Your task to perform on an android device: visit the assistant section in the google photos Image 0: 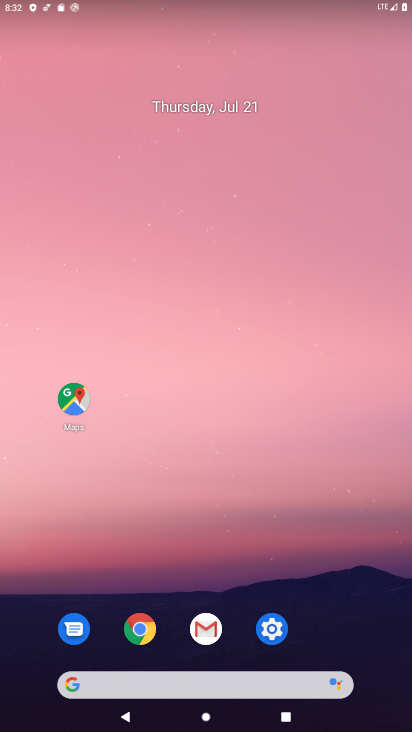
Step 0: drag from (284, 515) to (268, 148)
Your task to perform on an android device: visit the assistant section in the google photos Image 1: 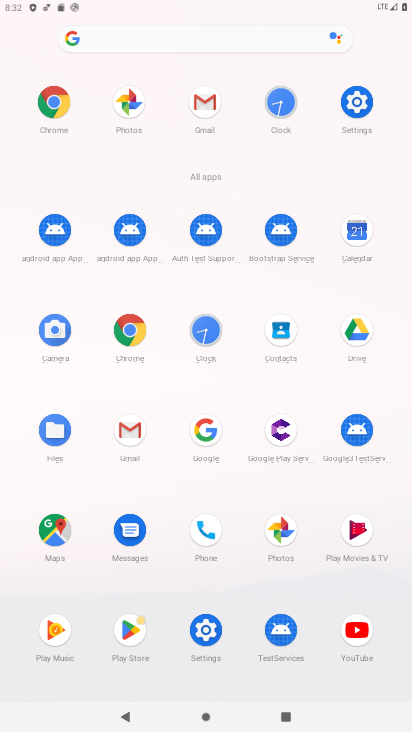
Step 1: click (273, 539)
Your task to perform on an android device: visit the assistant section in the google photos Image 2: 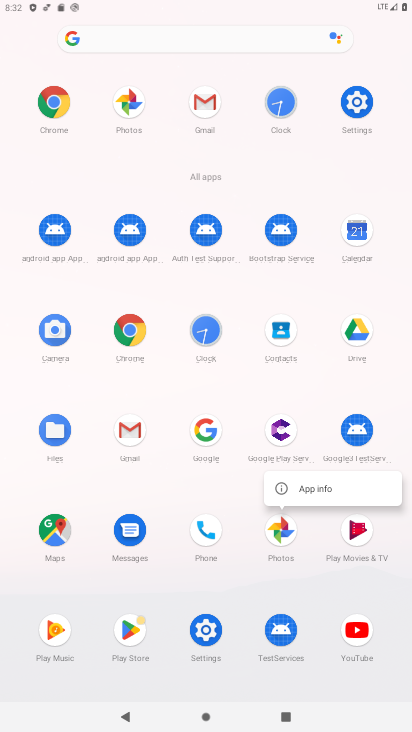
Step 2: click (276, 533)
Your task to perform on an android device: visit the assistant section in the google photos Image 3: 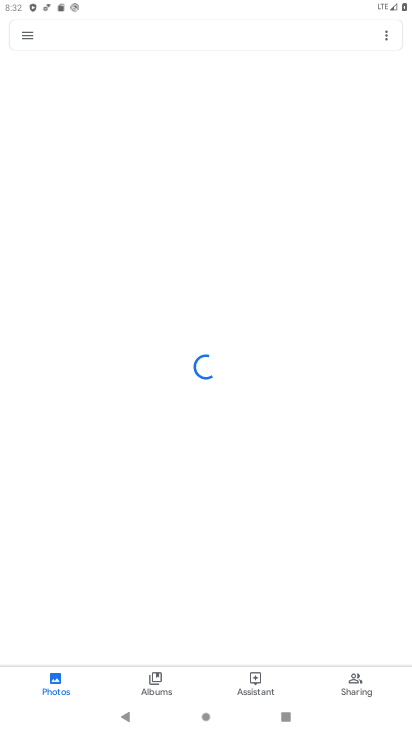
Step 3: click (260, 678)
Your task to perform on an android device: visit the assistant section in the google photos Image 4: 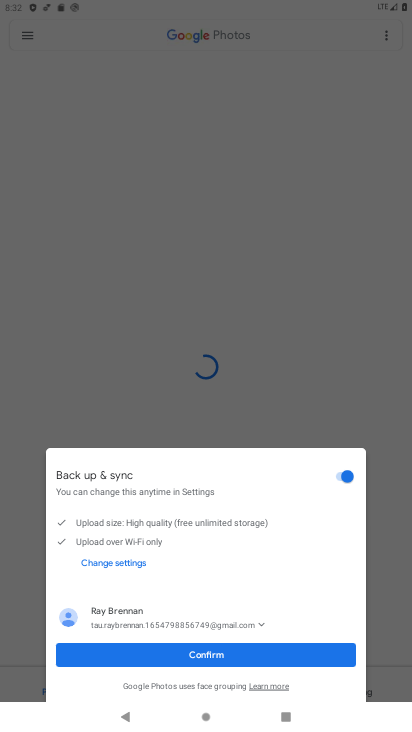
Step 4: click (250, 666)
Your task to perform on an android device: visit the assistant section in the google photos Image 5: 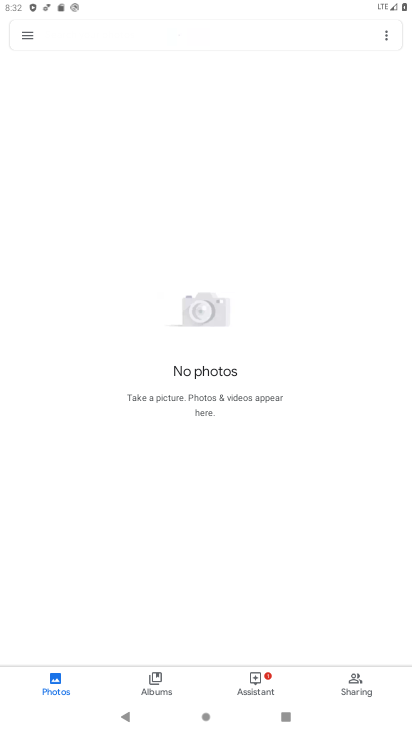
Step 5: click (251, 683)
Your task to perform on an android device: visit the assistant section in the google photos Image 6: 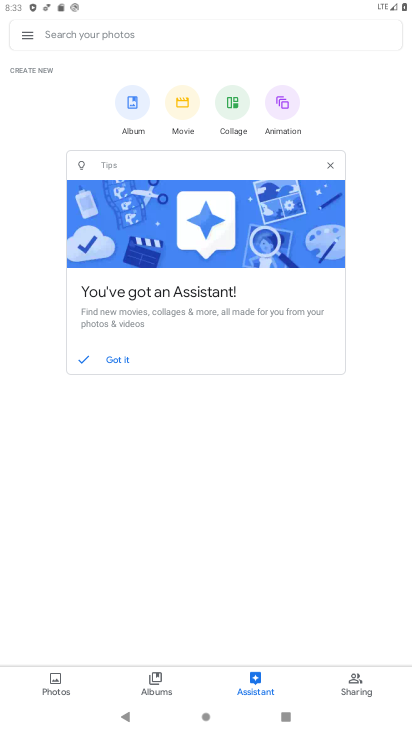
Step 6: task complete